Your task to perform on an android device: Do I have any events today? Image 0: 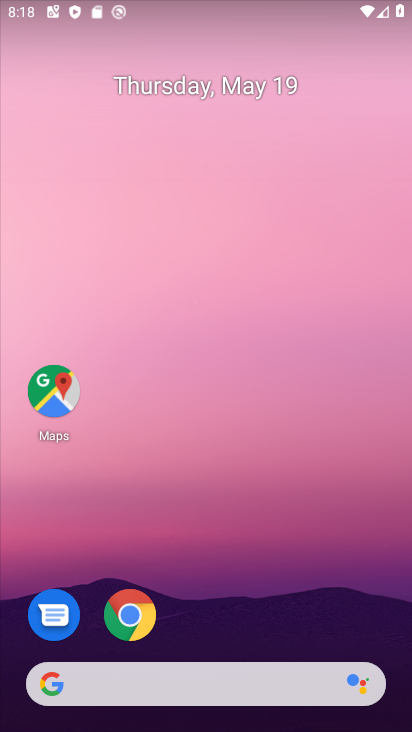
Step 0: drag from (260, 637) to (296, 204)
Your task to perform on an android device: Do I have any events today? Image 1: 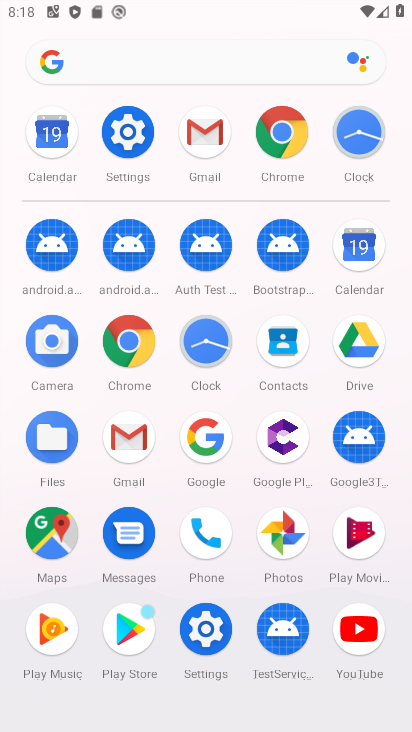
Step 1: click (347, 261)
Your task to perform on an android device: Do I have any events today? Image 2: 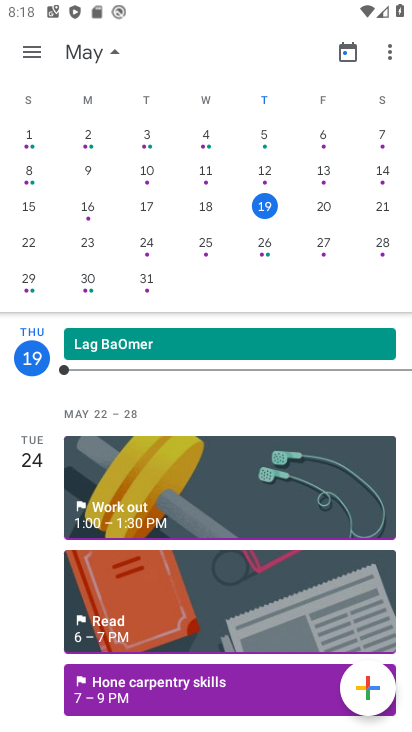
Step 2: task complete